Your task to perform on an android device: Open calendar and show me the third week of next month Image 0: 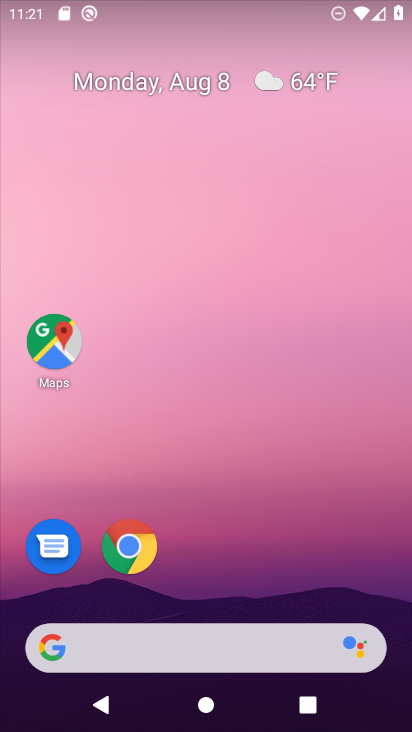
Step 0: press home button
Your task to perform on an android device: Open calendar and show me the third week of next month Image 1: 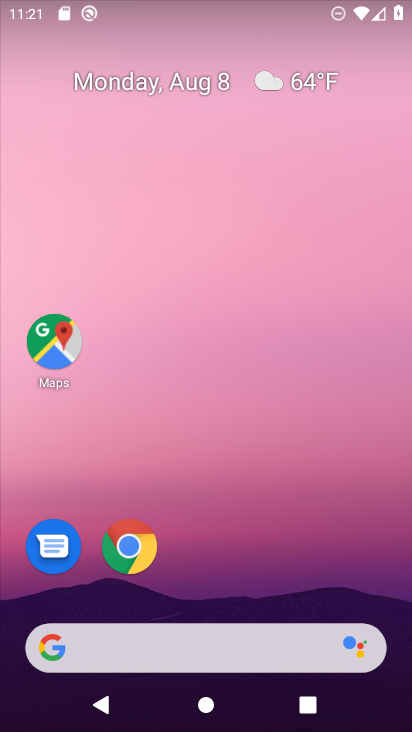
Step 1: drag from (220, 595) to (213, 52)
Your task to perform on an android device: Open calendar and show me the third week of next month Image 2: 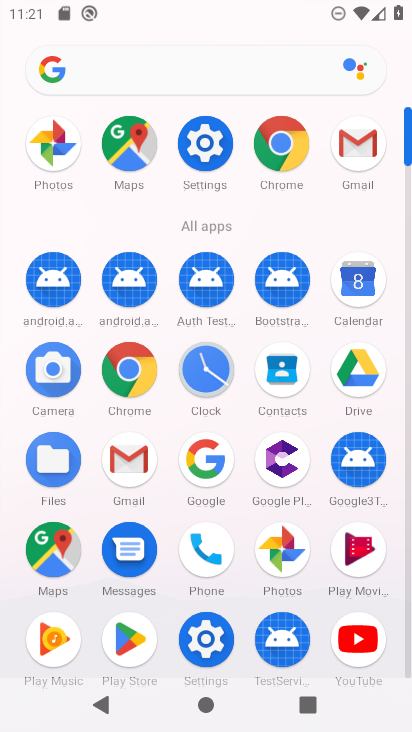
Step 2: click (360, 277)
Your task to perform on an android device: Open calendar and show me the third week of next month Image 3: 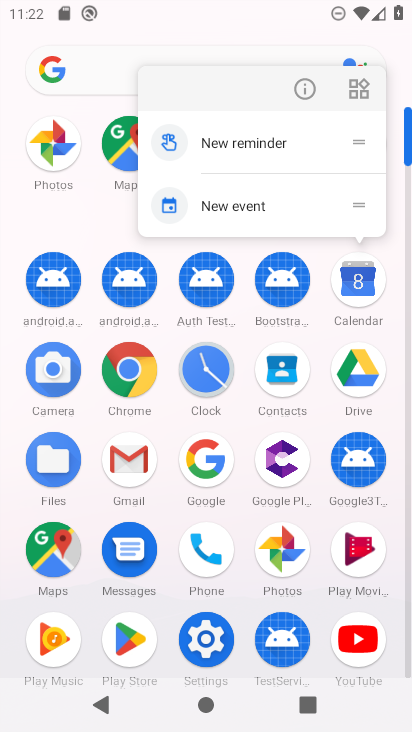
Step 3: click (357, 279)
Your task to perform on an android device: Open calendar and show me the third week of next month Image 4: 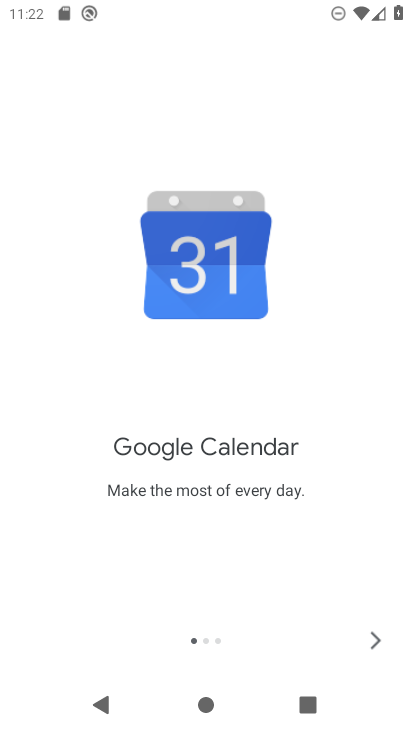
Step 4: click (382, 635)
Your task to perform on an android device: Open calendar and show me the third week of next month Image 5: 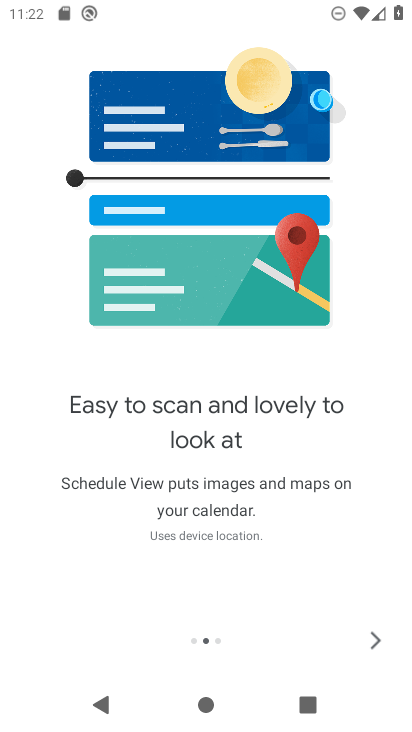
Step 5: click (379, 636)
Your task to perform on an android device: Open calendar and show me the third week of next month Image 6: 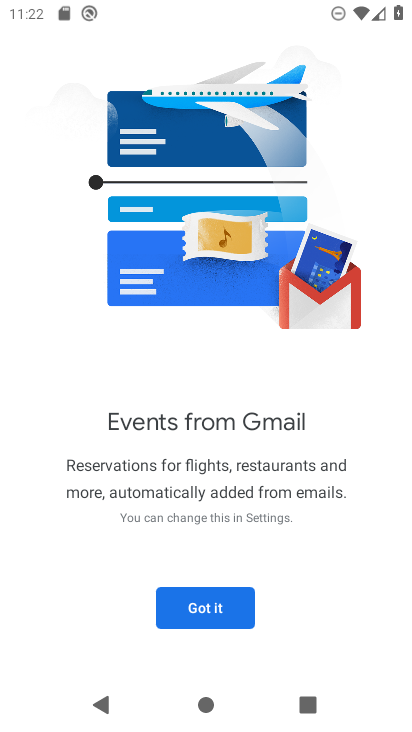
Step 6: click (211, 612)
Your task to perform on an android device: Open calendar and show me the third week of next month Image 7: 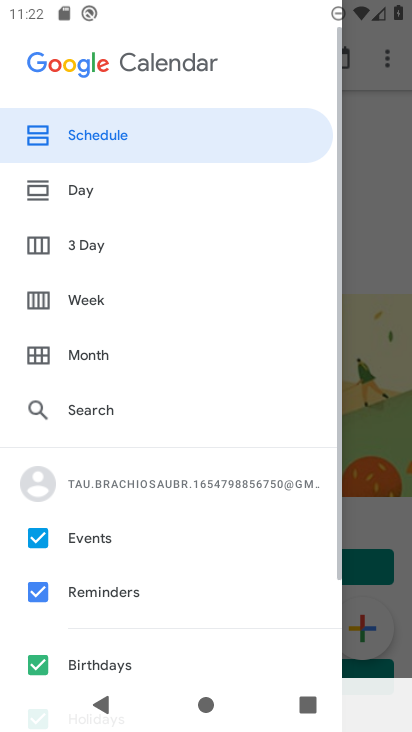
Step 7: click (71, 301)
Your task to perform on an android device: Open calendar and show me the third week of next month Image 8: 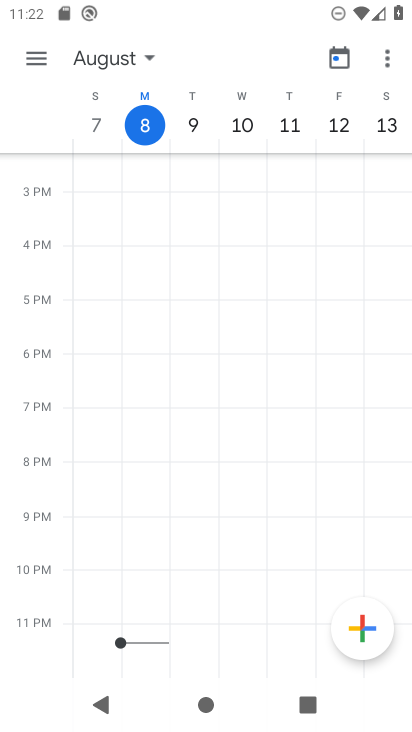
Step 8: click (147, 56)
Your task to perform on an android device: Open calendar and show me the third week of next month Image 9: 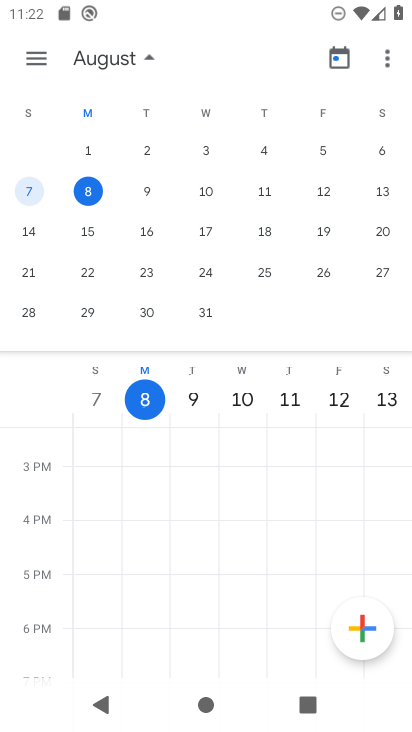
Step 9: drag from (364, 263) to (13, 269)
Your task to perform on an android device: Open calendar and show me the third week of next month Image 10: 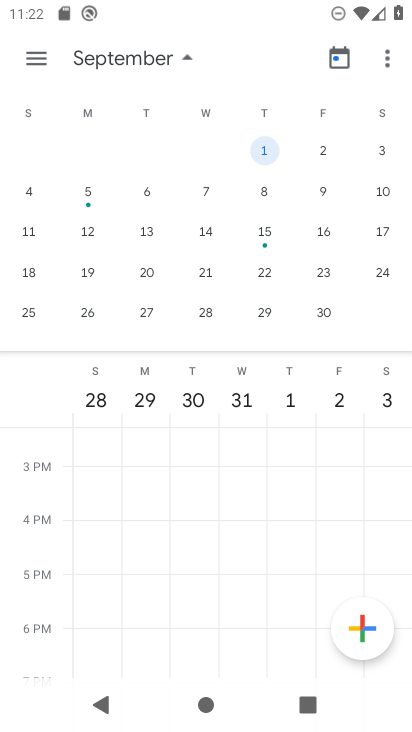
Step 10: click (24, 263)
Your task to perform on an android device: Open calendar and show me the third week of next month Image 11: 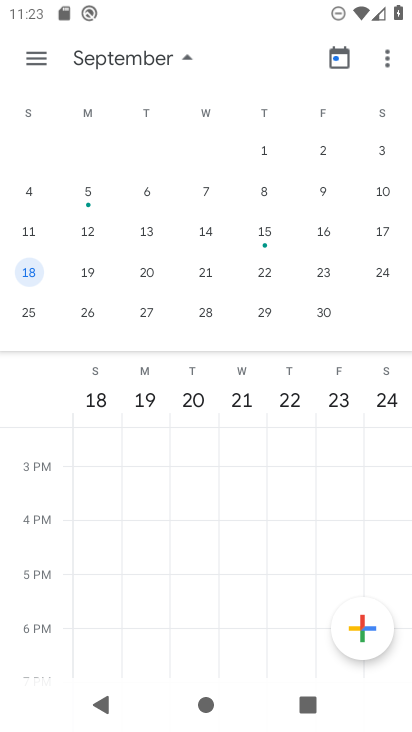
Step 11: click (182, 58)
Your task to perform on an android device: Open calendar and show me the third week of next month Image 12: 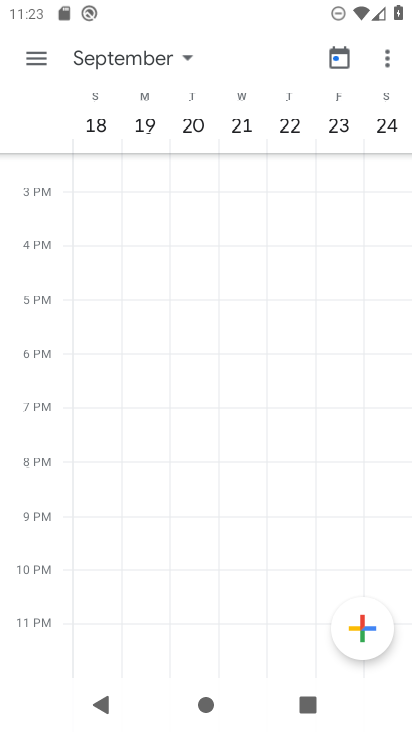
Step 12: click (28, 65)
Your task to perform on an android device: Open calendar and show me the third week of next month Image 13: 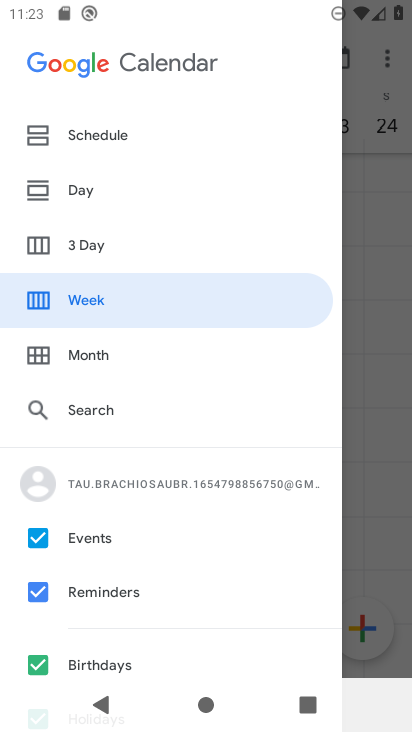
Step 13: click (66, 130)
Your task to perform on an android device: Open calendar and show me the third week of next month Image 14: 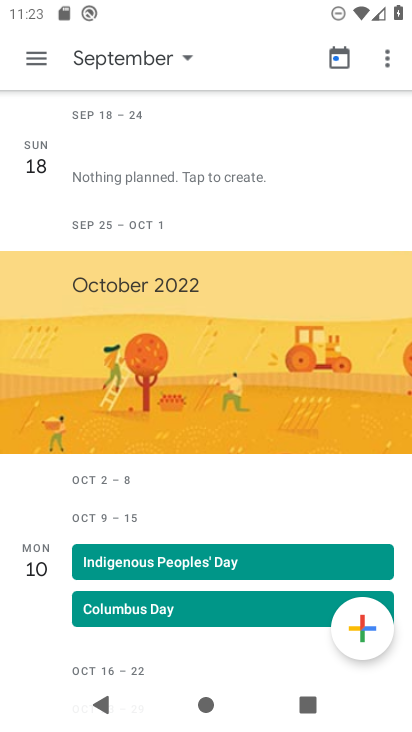
Step 14: task complete